Your task to perform on an android device: Check the news Image 0: 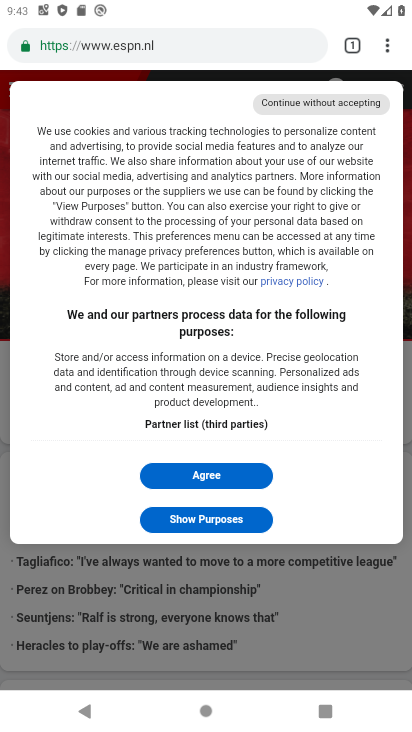
Step 0: press home button
Your task to perform on an android device: Check the news Image 1: 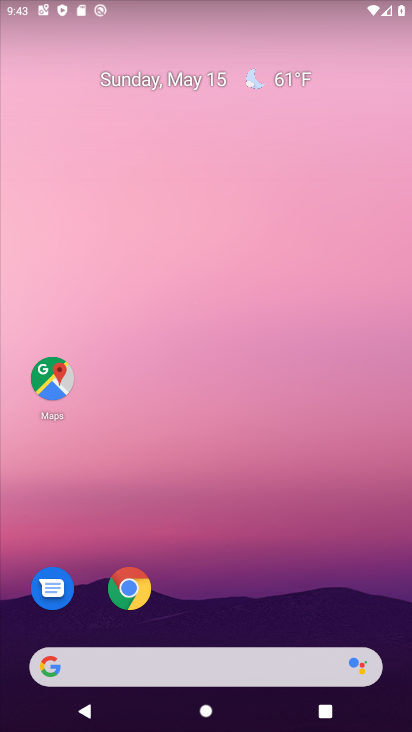
Step 1: click (145, 653)
Your task to perform on an android device: Check the news Image 2: 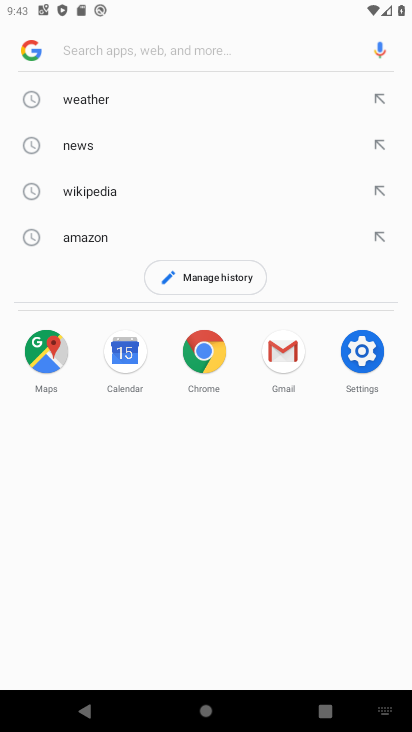
Step 2: click (93, 138)
Your task to perform on an android device: Check the news Image 3: 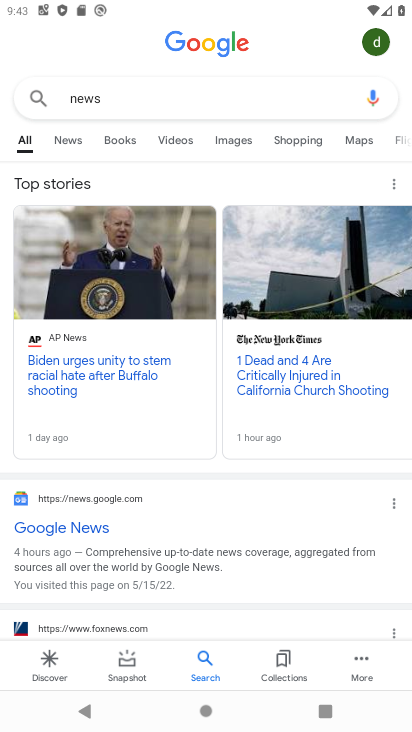
Step 3: task complete